Your task to perform on an android device: Add "razer huntsman" to the cart on bestbuy, then select checkout. Image 0: 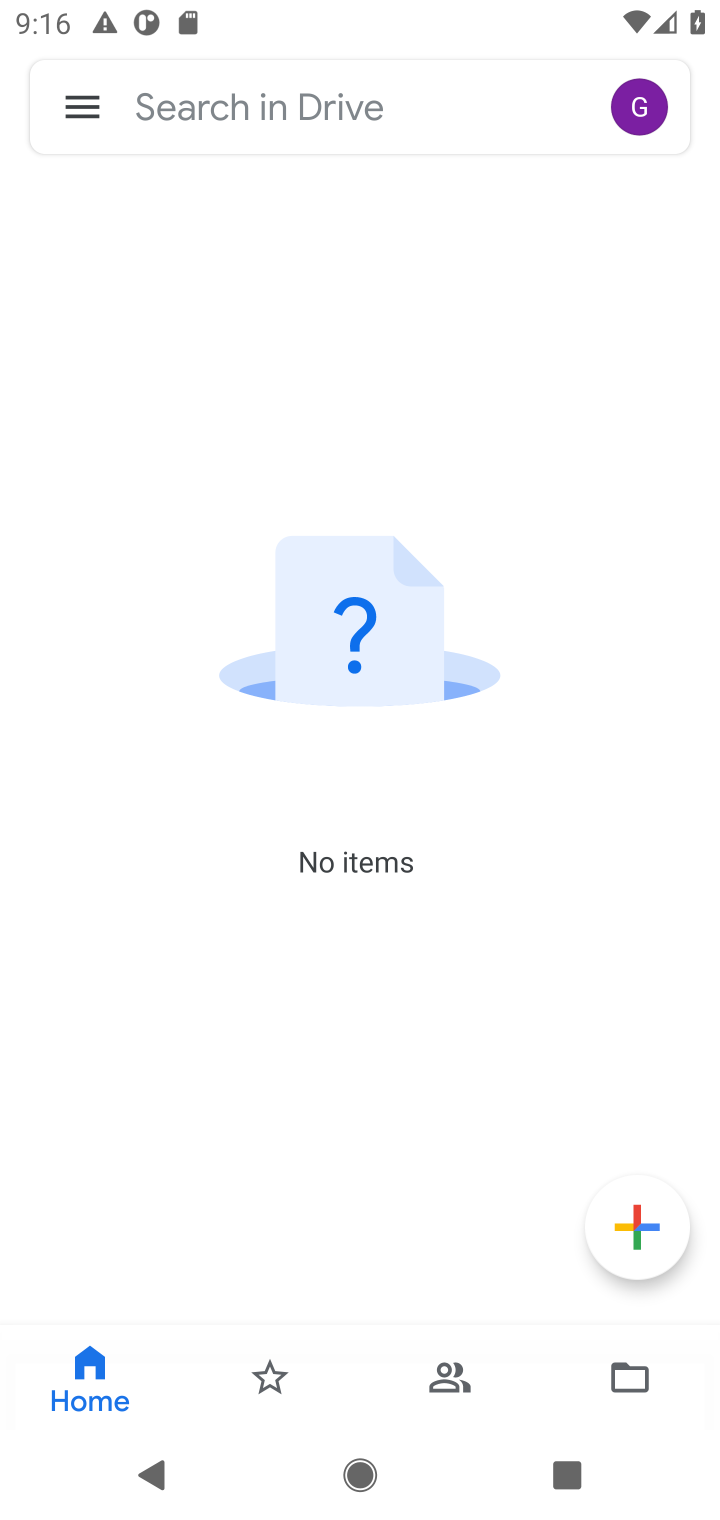
Step 0: press home button
Your task to perform on an android device: Add "razer huntsman" to the cart on bestbuy, then select checkout. Image 1: 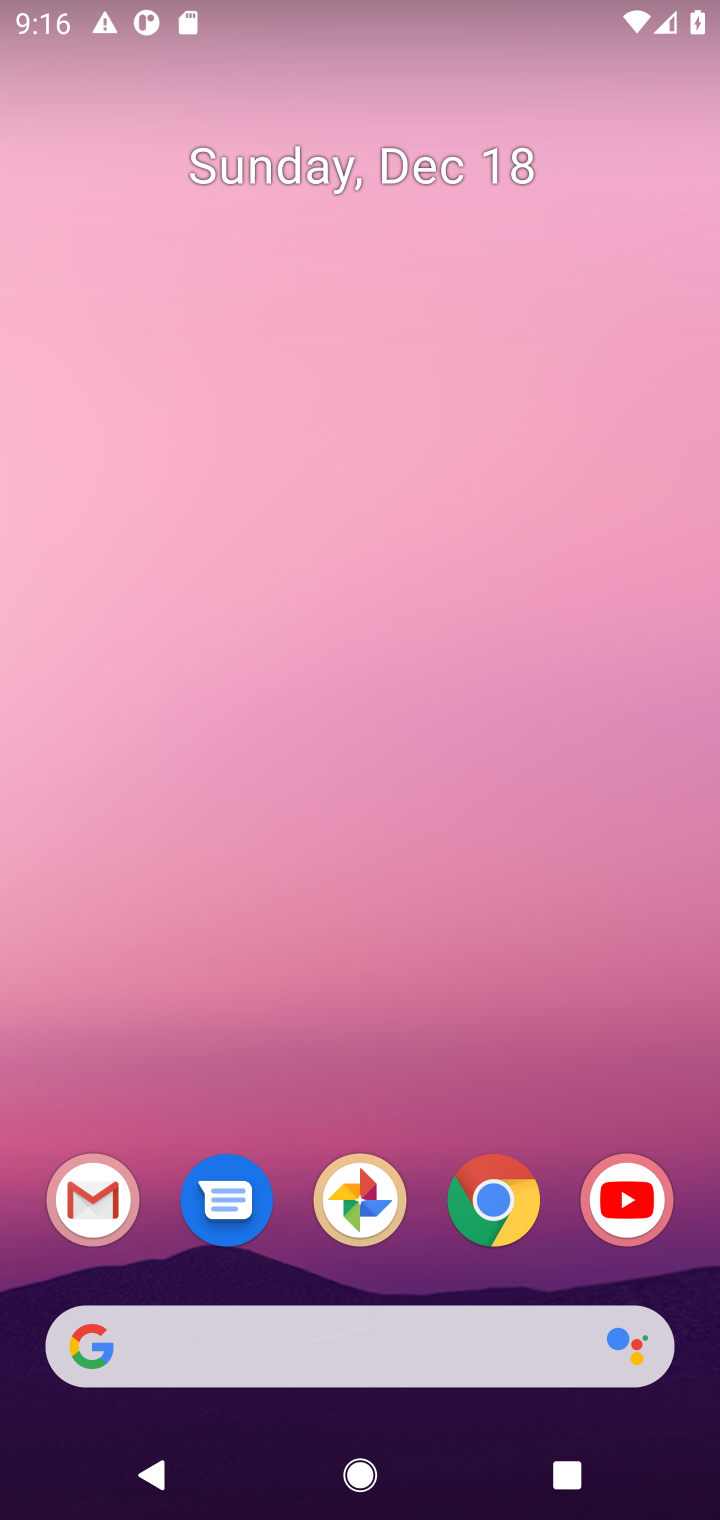
Step 1: click (489, 1201)
Your task to perform on an android device: Add "razer huntsman" to the cart on bestbuy, then select checkout. Image 2: 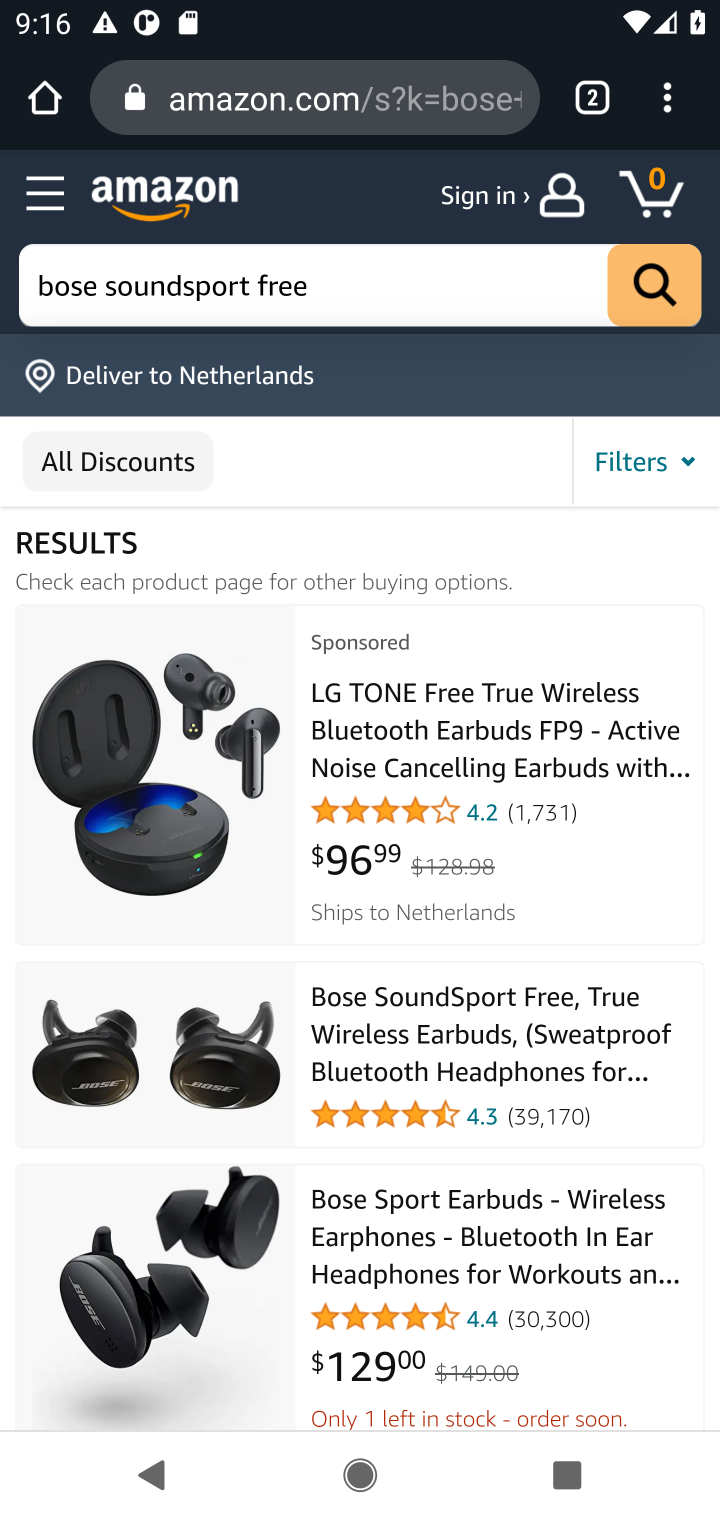
Step 2: click (276, 110)
Your task to perform on an android device: Add "razer huntsman" to the cart on bestbuy, then select checkout. Image 3: 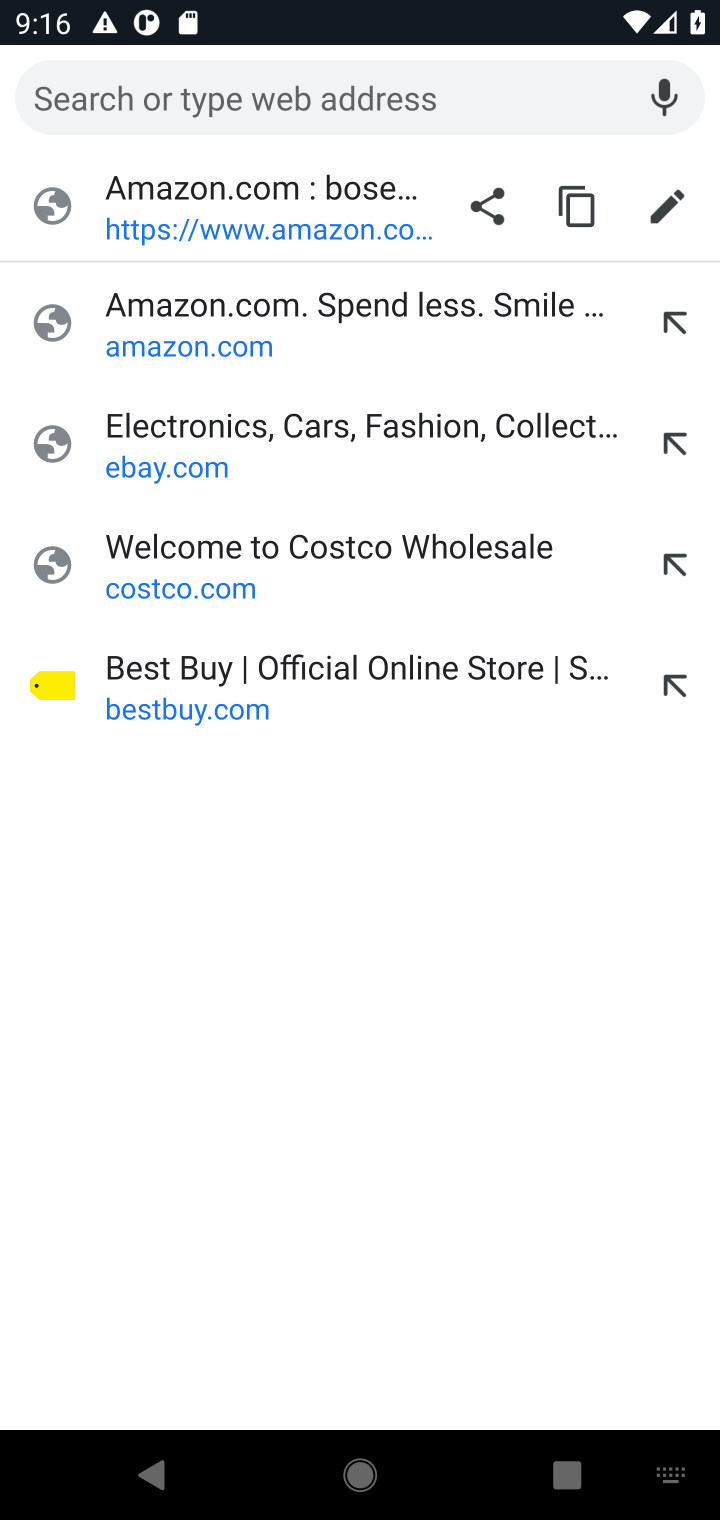
Step 3: click (181, 705)
Your task to perform on an android device: Add "razer huntsman" to the cart on bestbuy, then select checkout. Image 4: 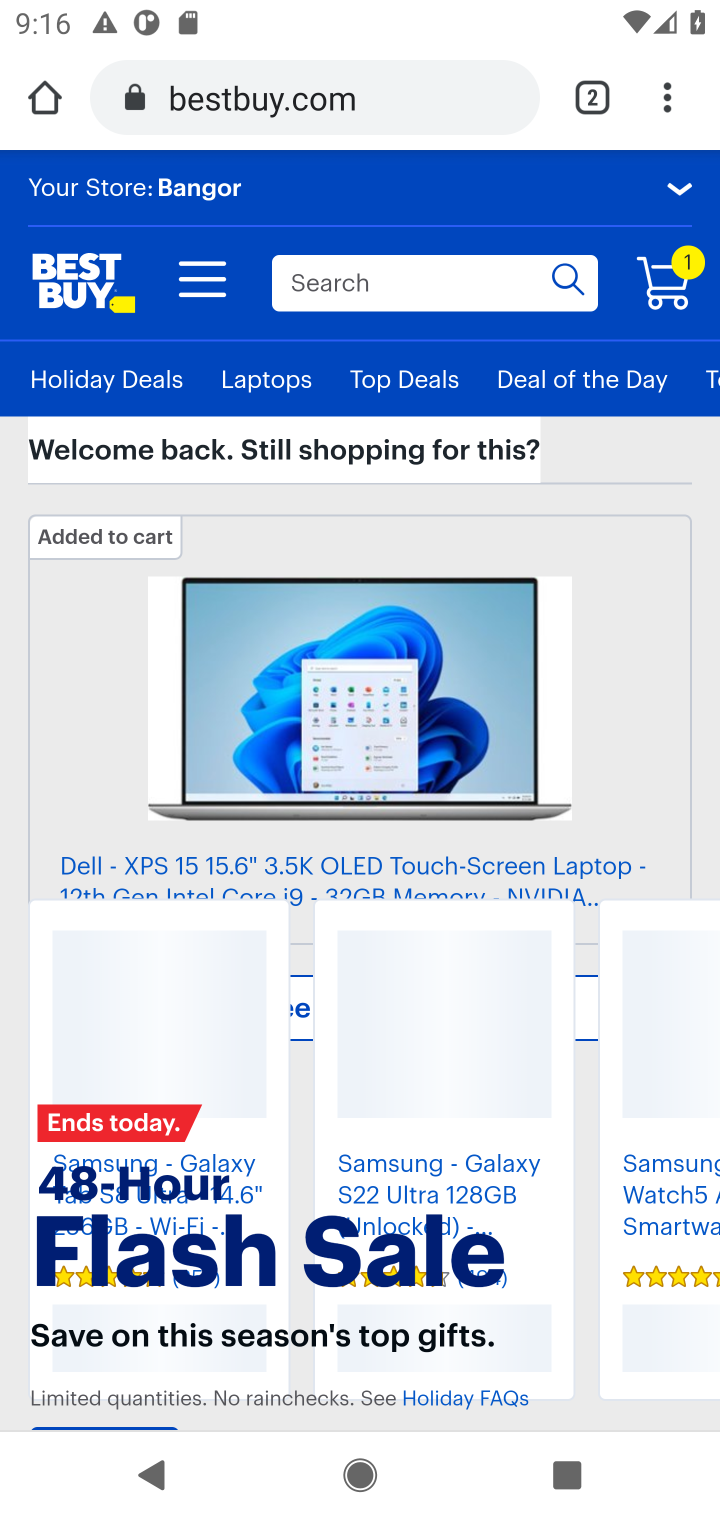
Step 4: click (389, 282)
Your task to perform on an android device: Add "razer huntsman" to the cart on bestbuy, then select checkout. Image 5: 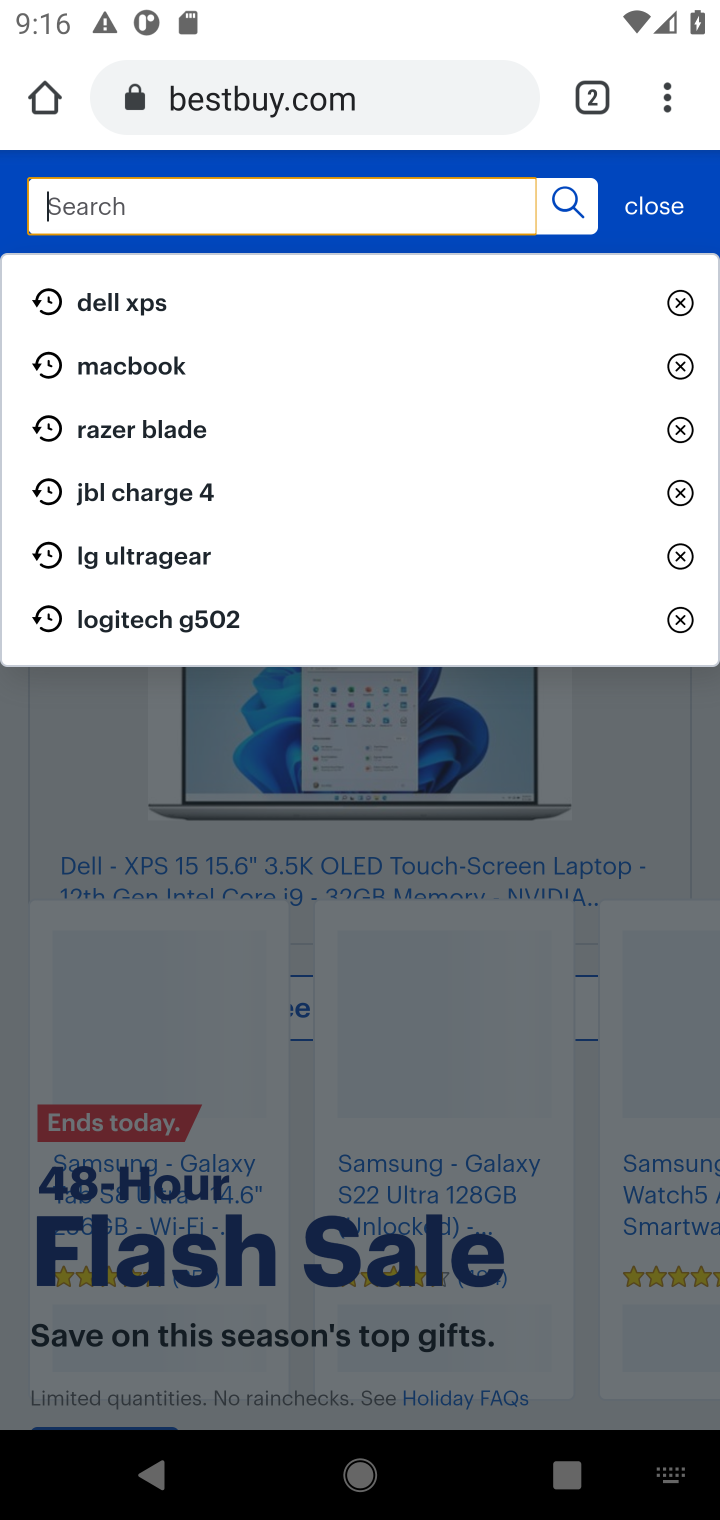
Step 5: type "razer huntsman"
Your task to perform on an android device: Add "razer huntsman" to the cart on bestbuy, then select checkout. Image 6: 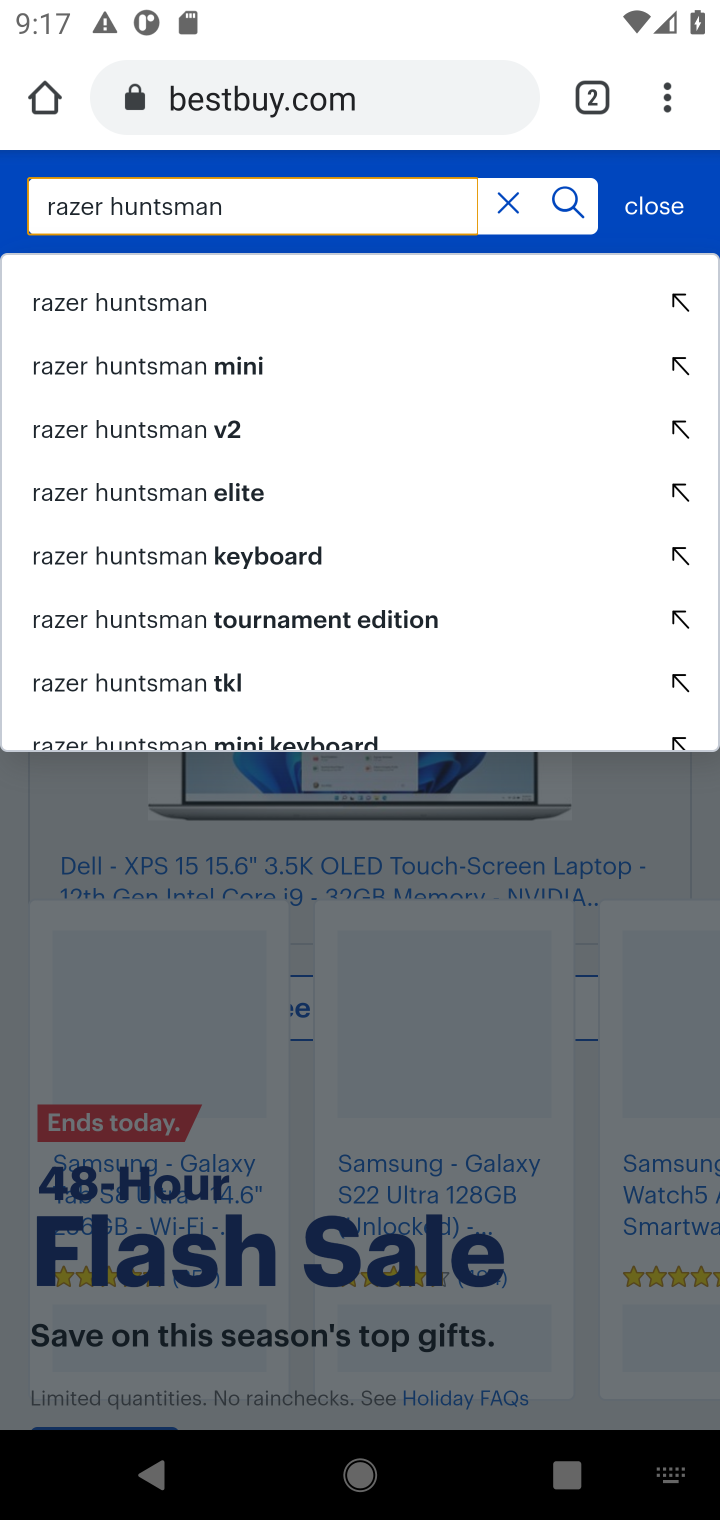
Step 6: click (137, 302)
Your task to perform on an android device: Add "razer huntsman" to the cart on bestbuy, then select checkout. Image 7: 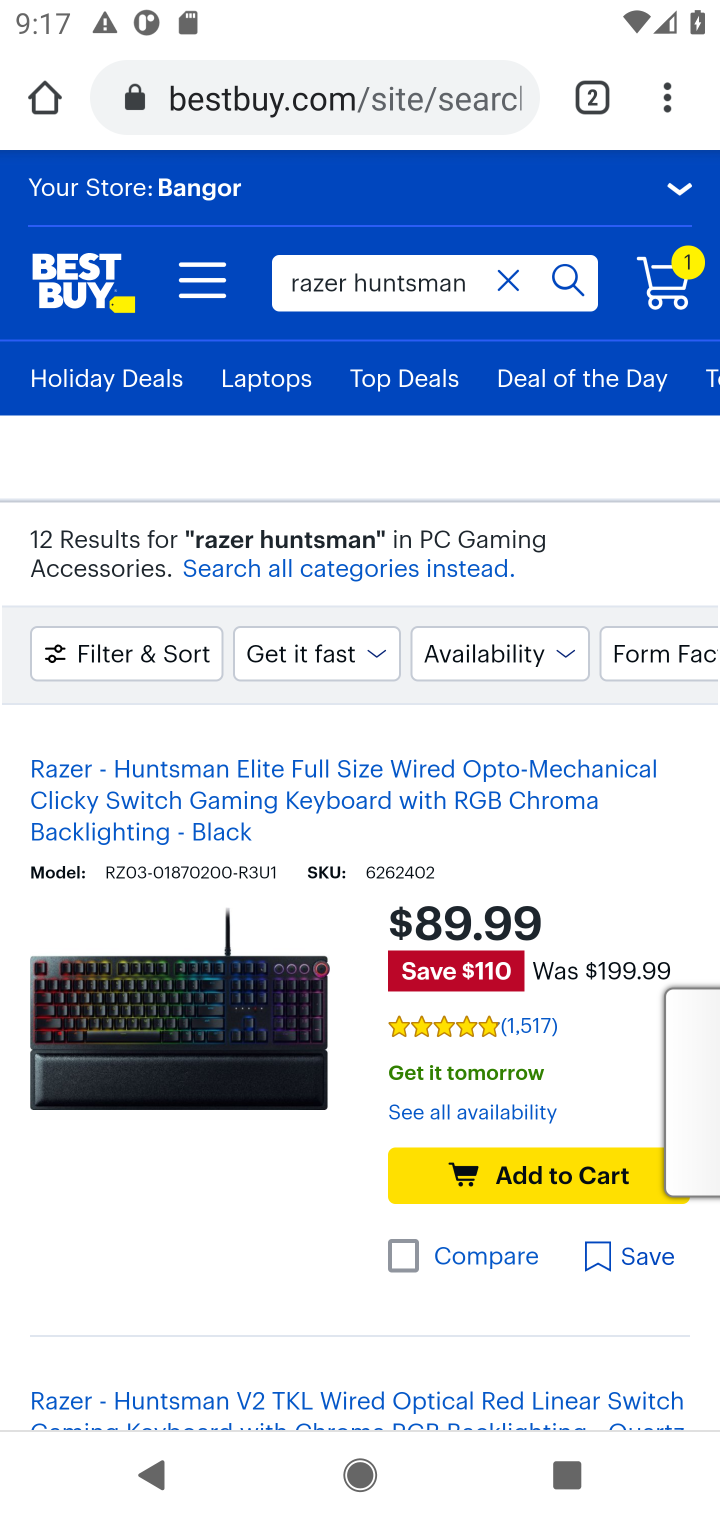
Step 7: click (140, 1022)
Your task to perform on an android device: Add "razer huntsman" to the cart on bestbuy, then select checkout. Image 8: 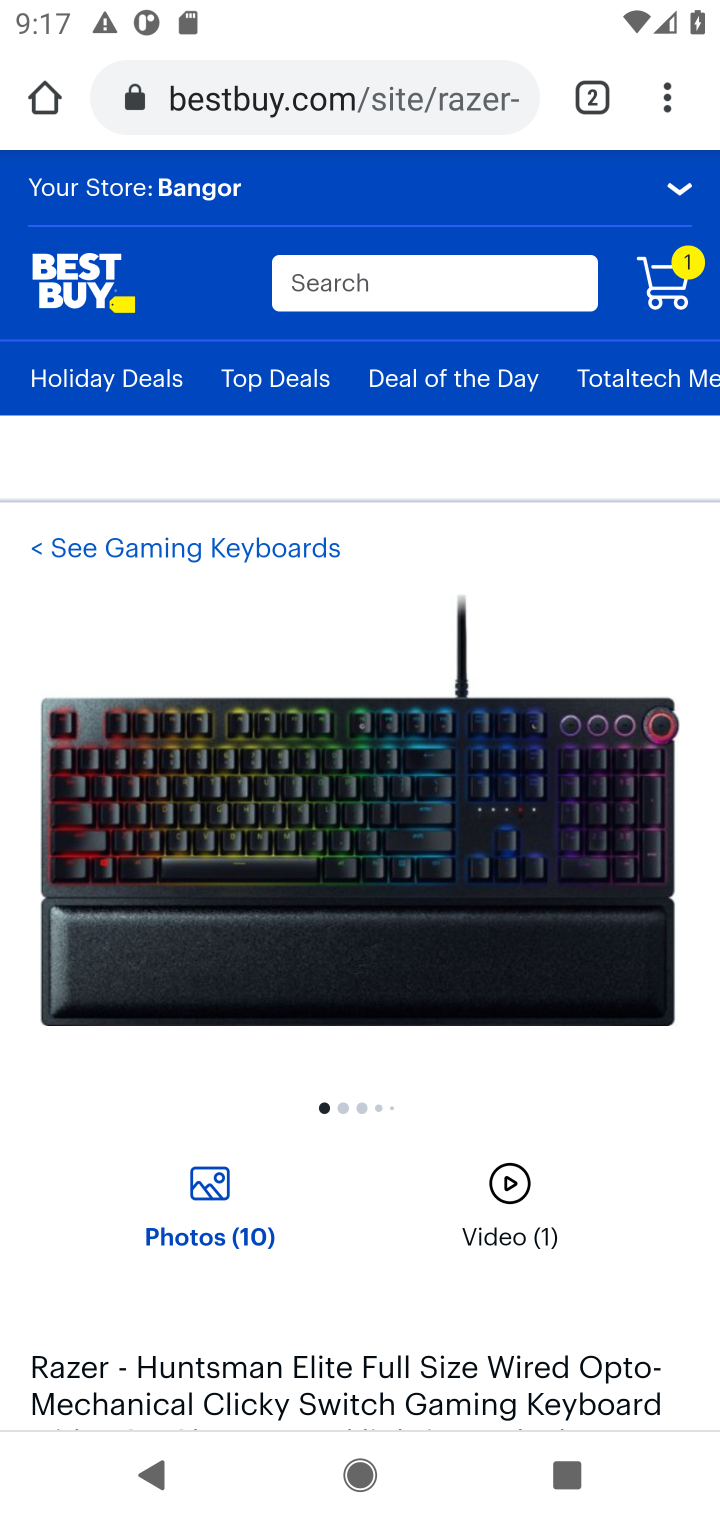
Step 8: drag from (310, 1177) to (254, 446)
Your task to perform on an android device: Add "razer huntsman" to the cart on bestbuy, then select checkout. Image 9: 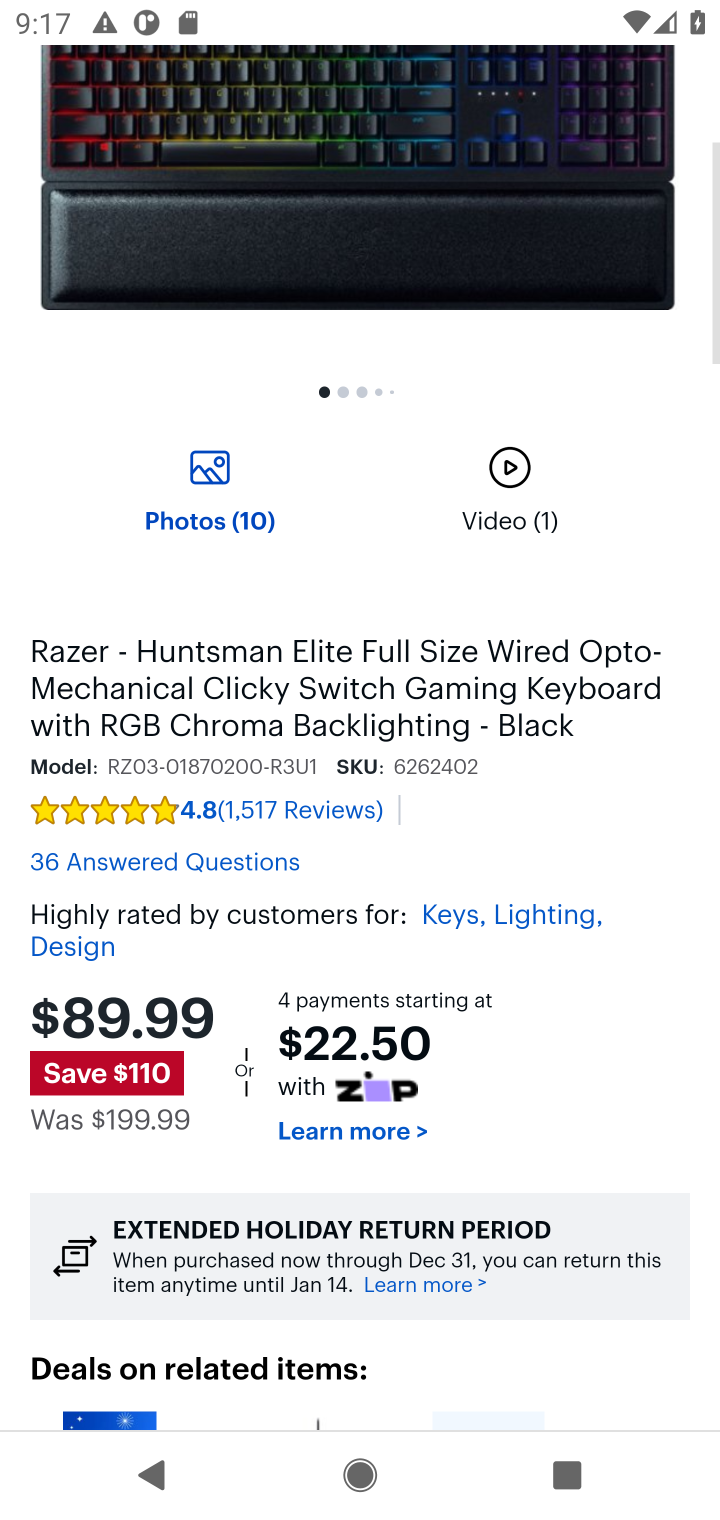
Step 9: drag from (249, 1056) to (260, 343)
Your task to perform on an android device: Add "razer huntsman" to the cart on bestbuy, then select checkout. Image 10: 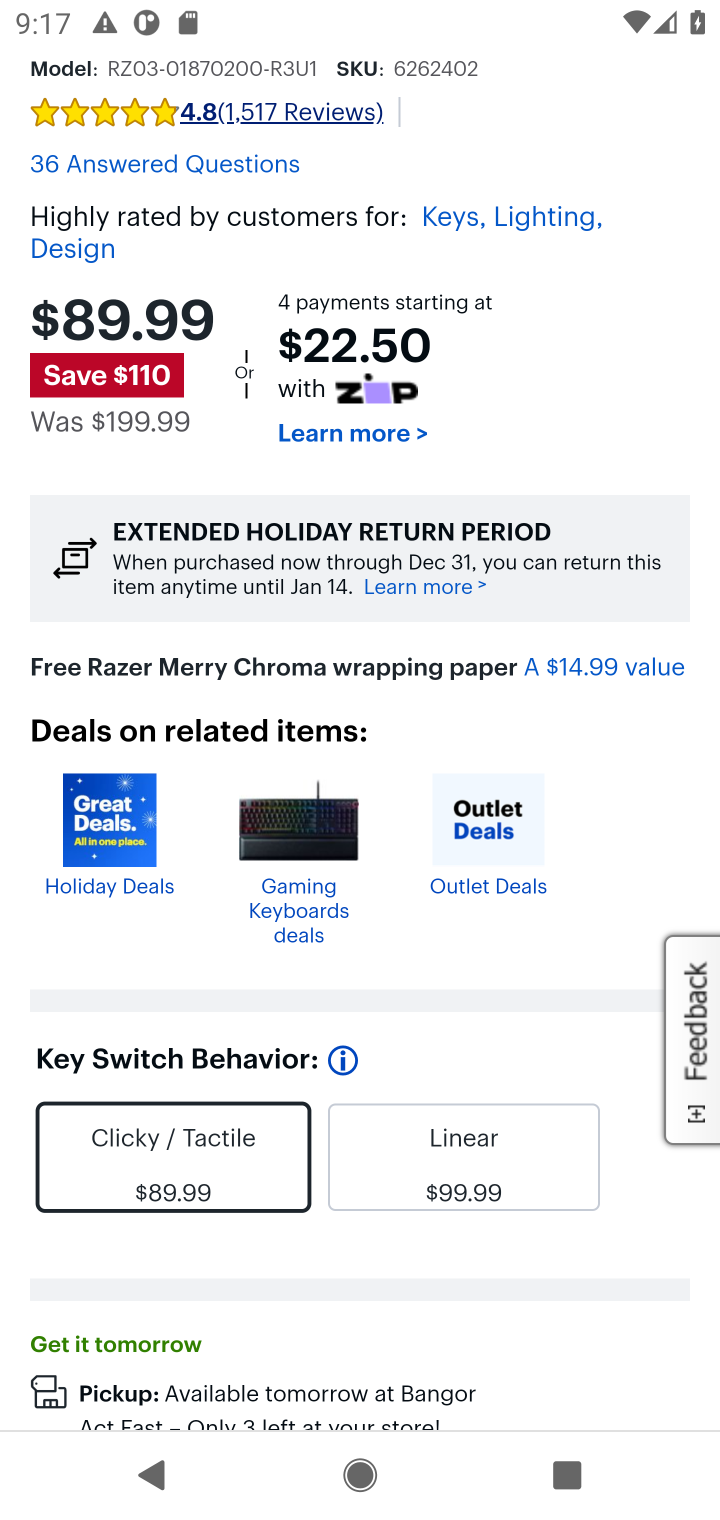
Step 10: drag from (276, 866) to (198, 317)
Your task to perform on an android device: Add "razer huntsman" to the cart on bestbuy, then select checkout. Image 11: 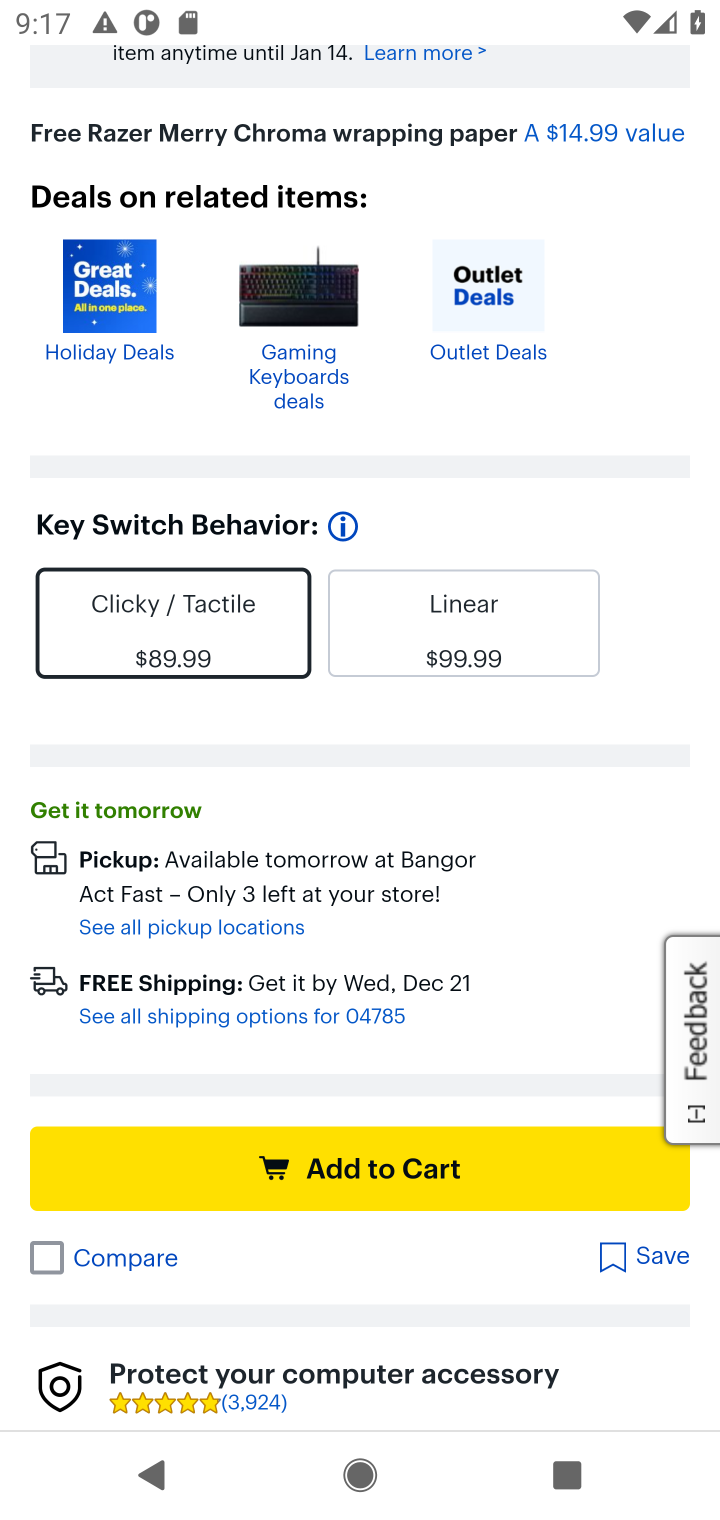
Step 11: click (268, 1170)
Your task to perform on an android device: Add "razer huntsman" to the cart on bestbuy, then select checkout. Image 12: 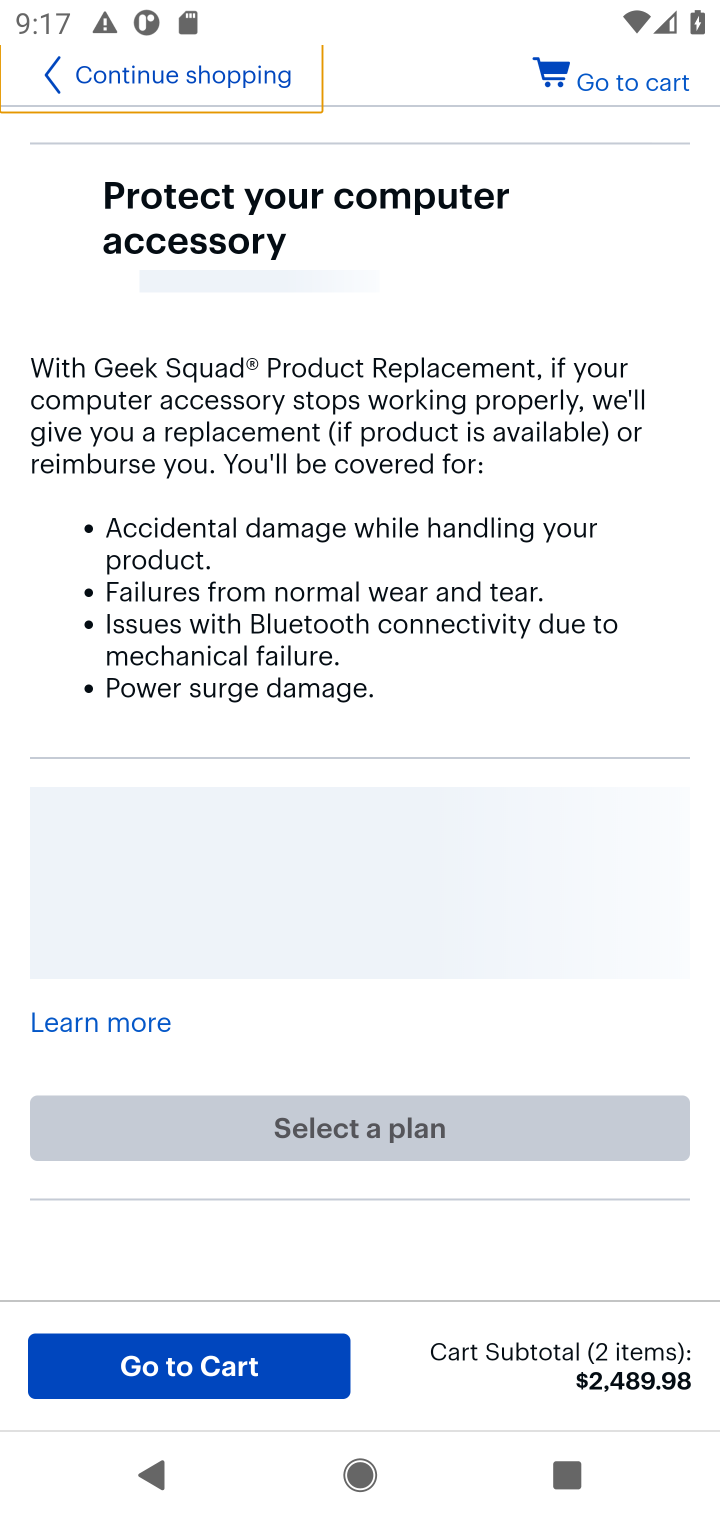
Step 12: click (609, 87)
Your task to perform on an android device: Add "razer huntsman" to the cart on bestbuy, then select checkout. Image 13: 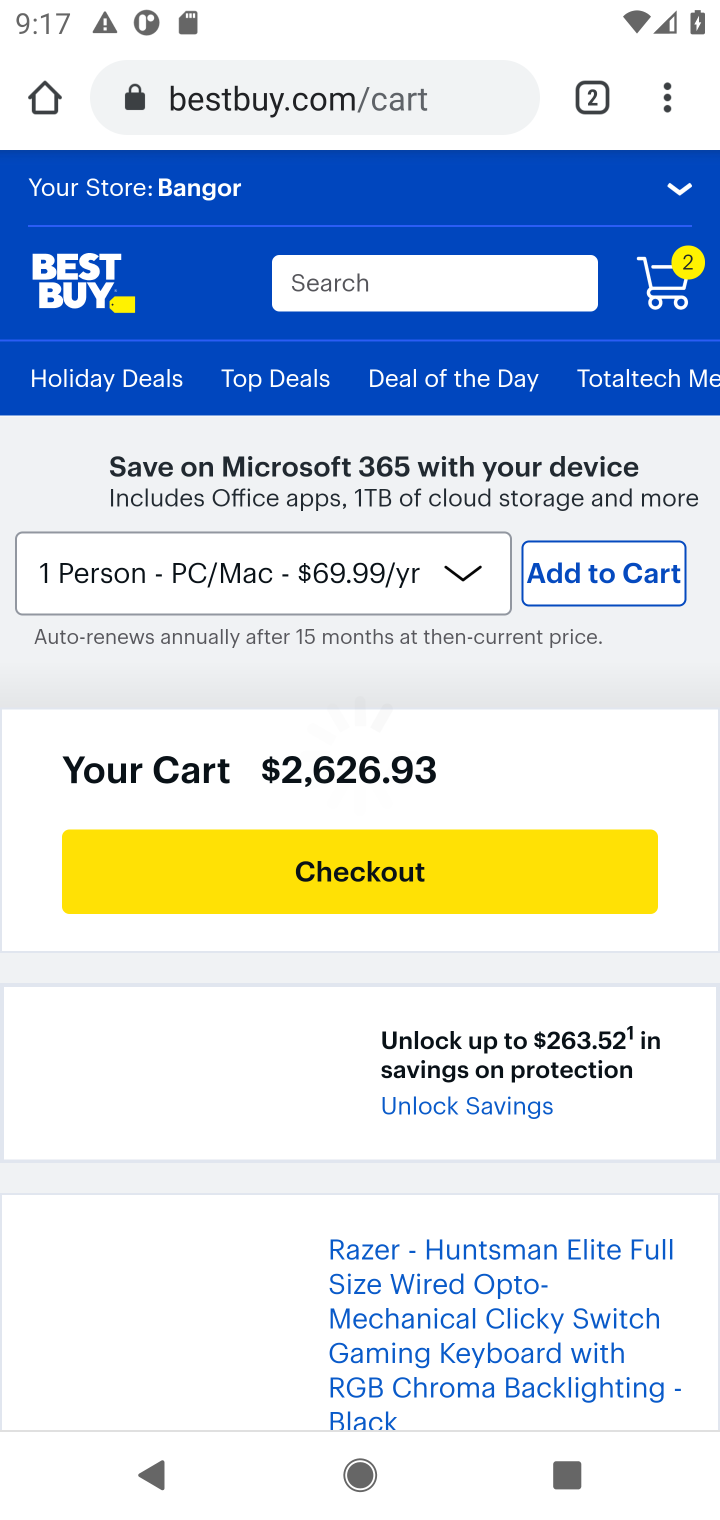
Step 13: click (373, 882)
Your task to perform on an android device: Add "razer huntsman" to the cart on bestbuy, then select checkout. Image 14: 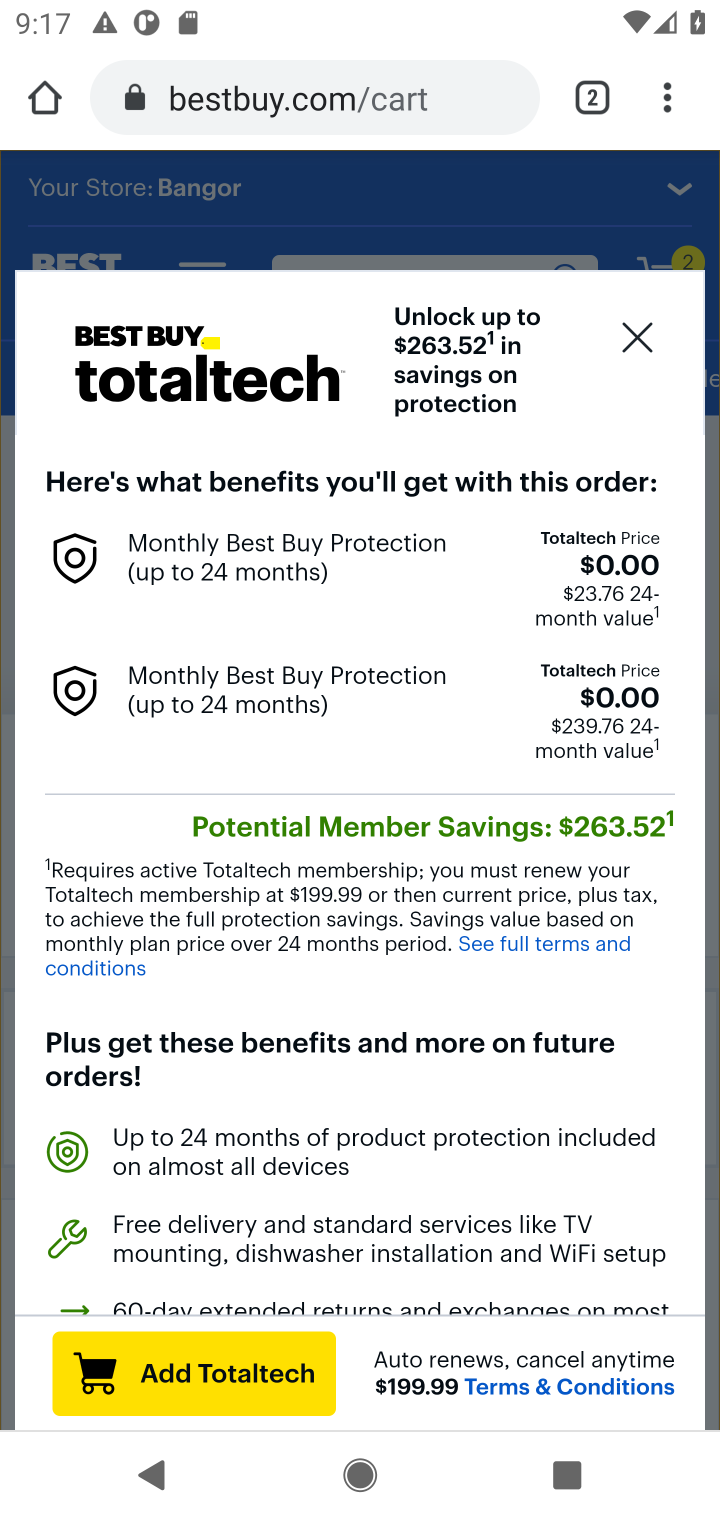
Step 14: click (649, 347)
Your task to perform on an android device: Add "razer huntsman" to the cart on bestbuy, then select checkout. Image 15: 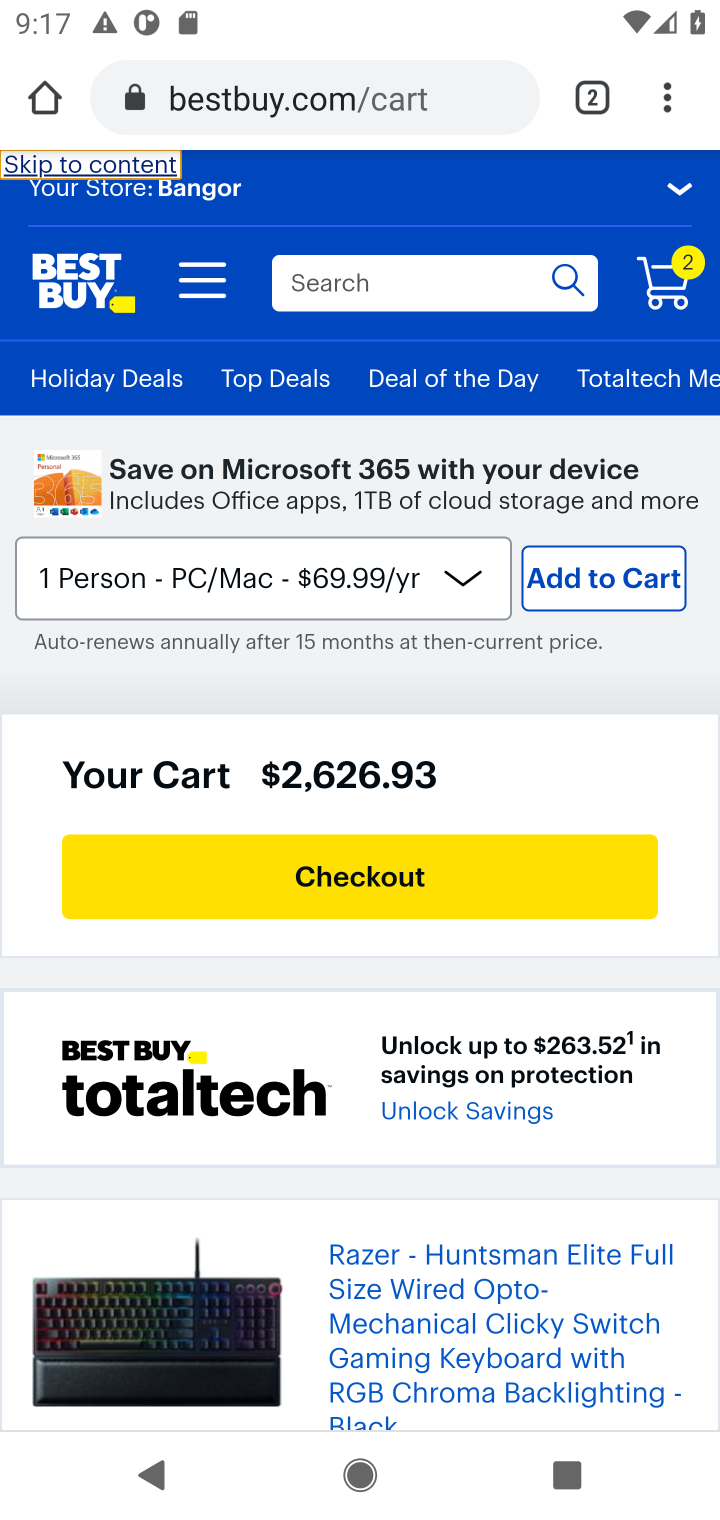
Step 15: click (371, 881)
Your task to perform on an android device: Add "razer huntsman" to the cart on bestbuy, then select checkout. Image 16: 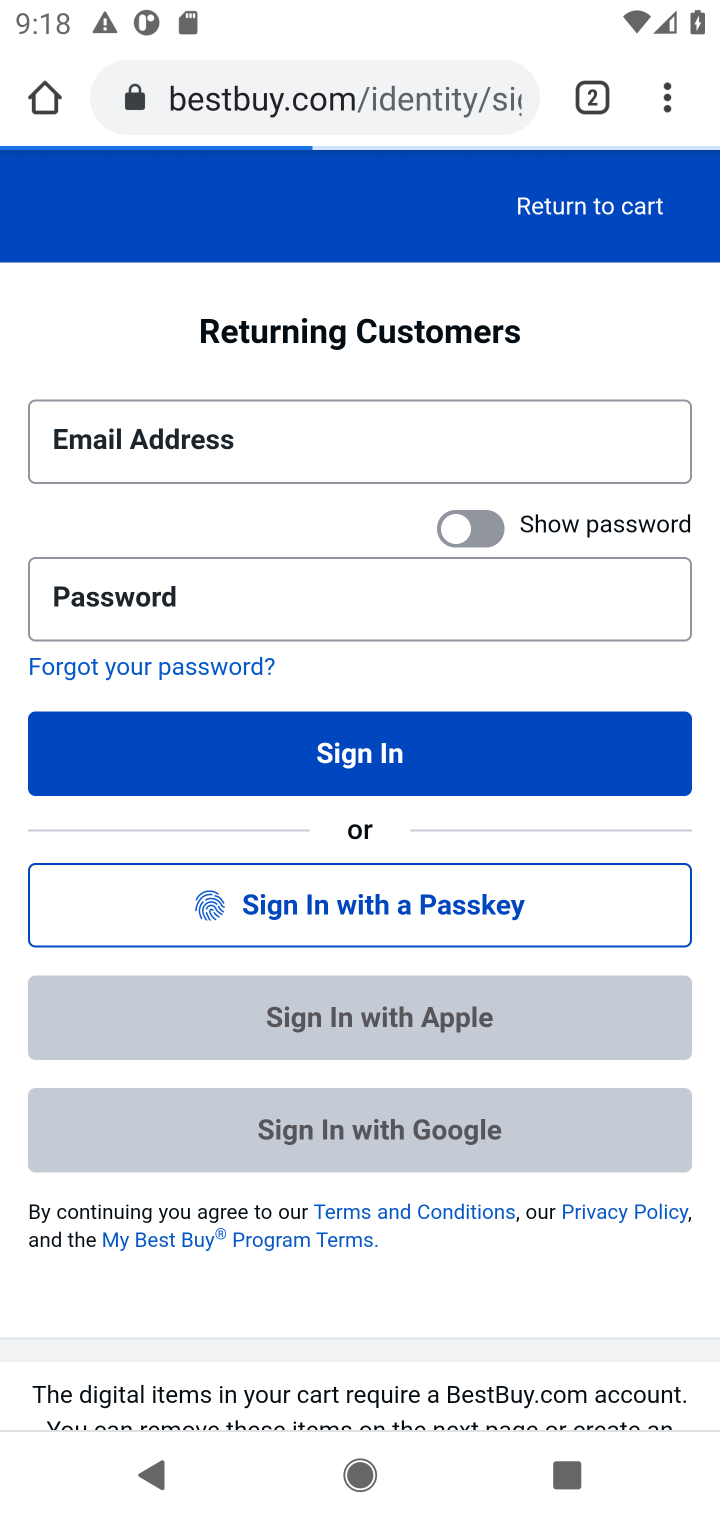
Step 16: task complete